Your task to perform on an android device: Open sound settings Image 0: 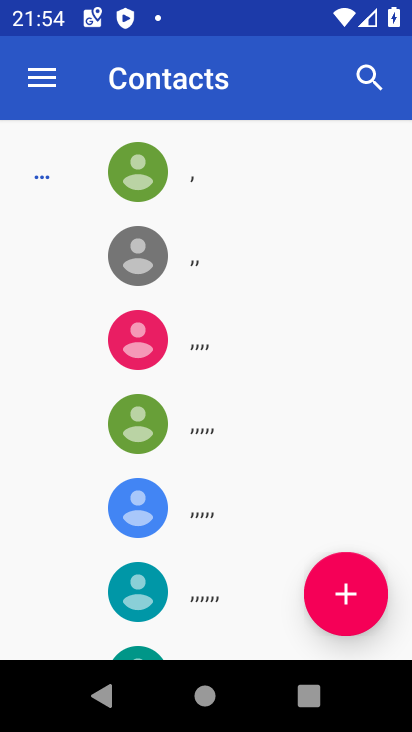
Step 0: press home button
Your task to perform on an android device: Open sound settings Image 1: 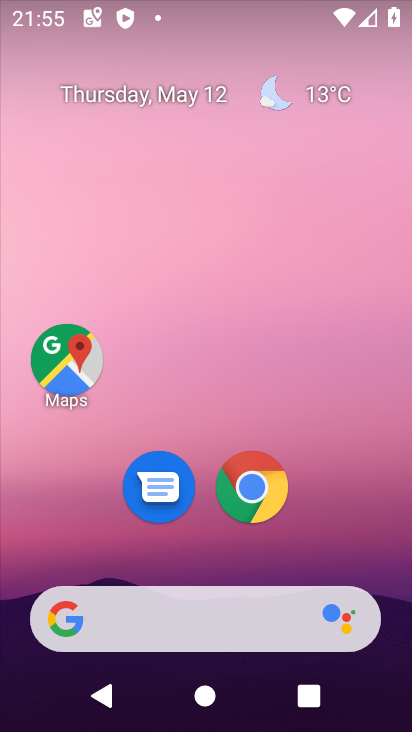
Step 1: drag from (198, 541) to (220, 474)
Your task to perform on an android device: Open sound settings Image 2: 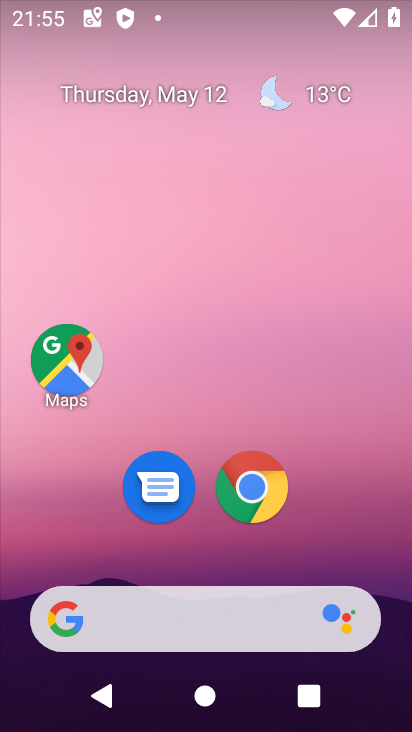
Step 2: drag from (216, 536) to (204, 137)
Your task to perform on an android device: Open sound settings Image 3: 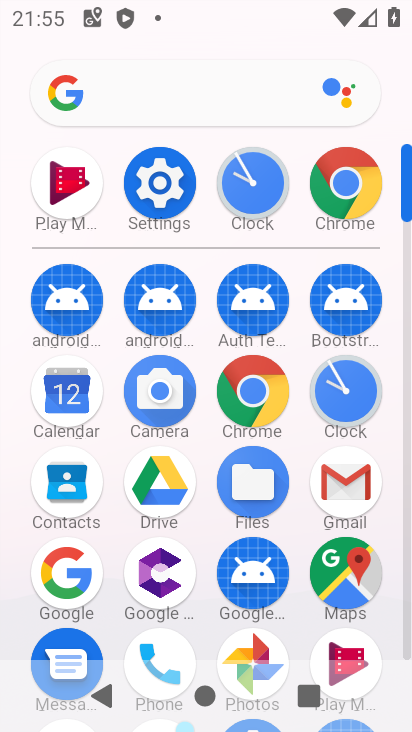
Step 3: click (154, 205)
Your task to perform on an android device: Open sound settings Image 4: 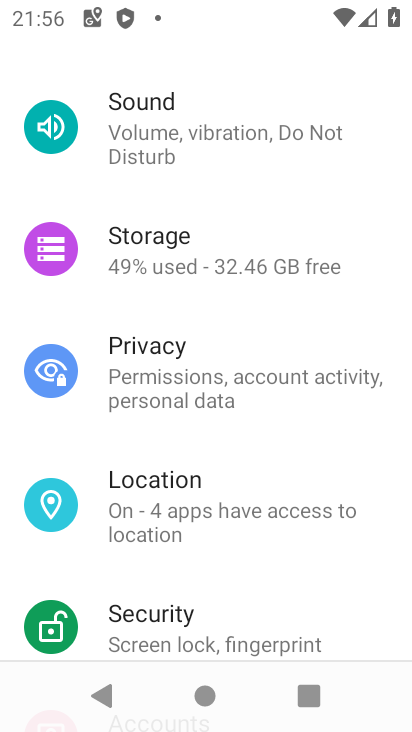
Step 4: click (150, 105)
Your task to perform on an android device: Open sound settings Image 5: 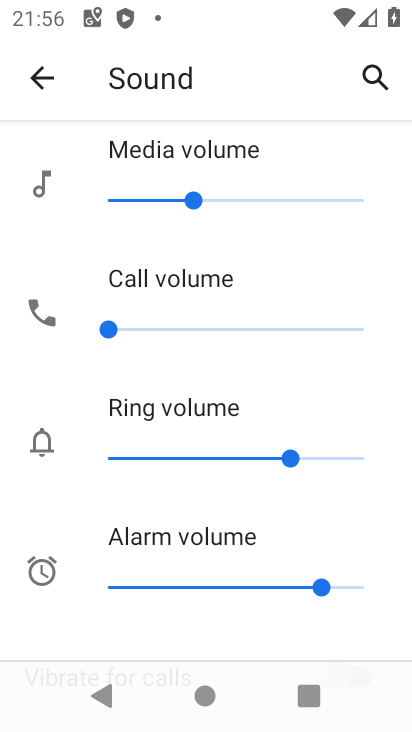
Step 5: task complete